Your task to perform on an android device: refresh tabs in the chrome app Image 0: 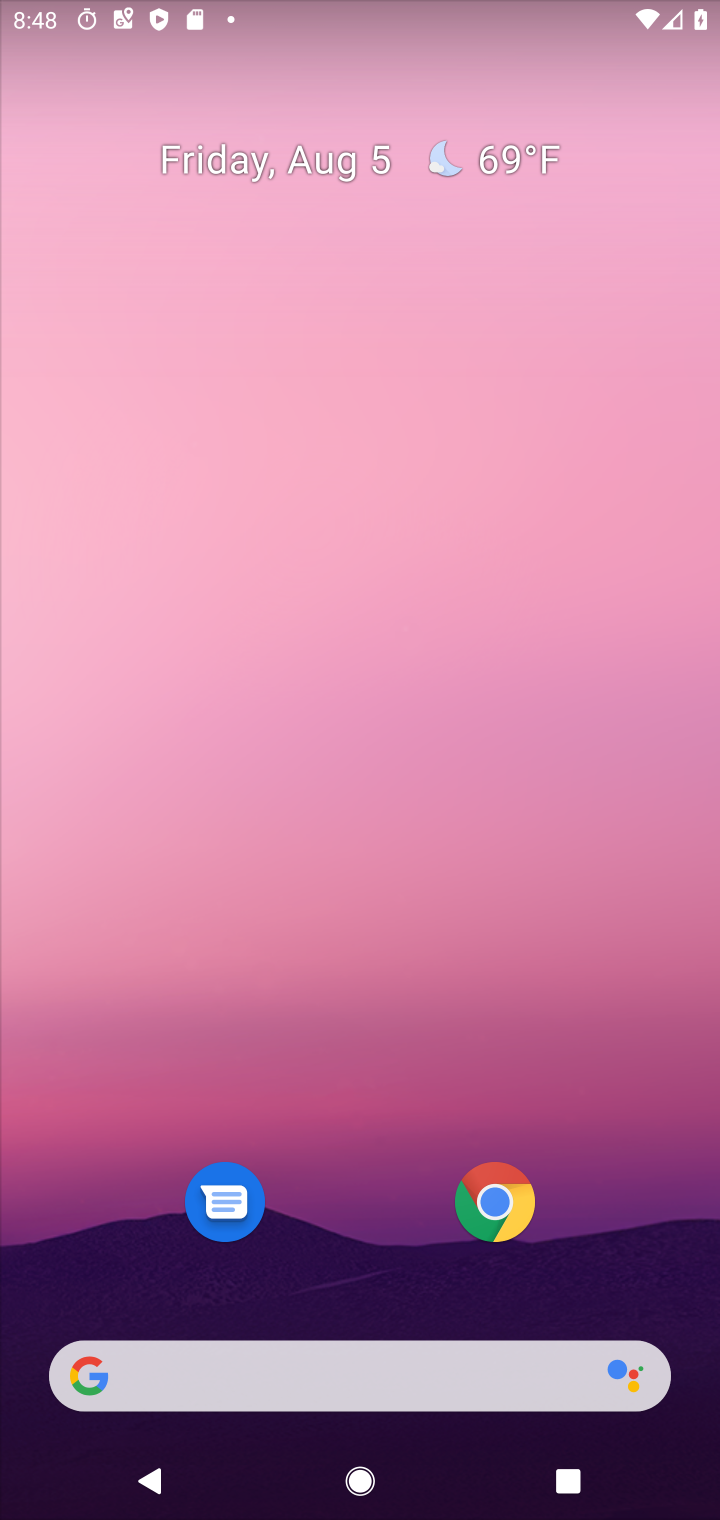
Step 0: click (500, 1214)
Your task to perform on an android device: refresh tabs in the chrome app Image 1: 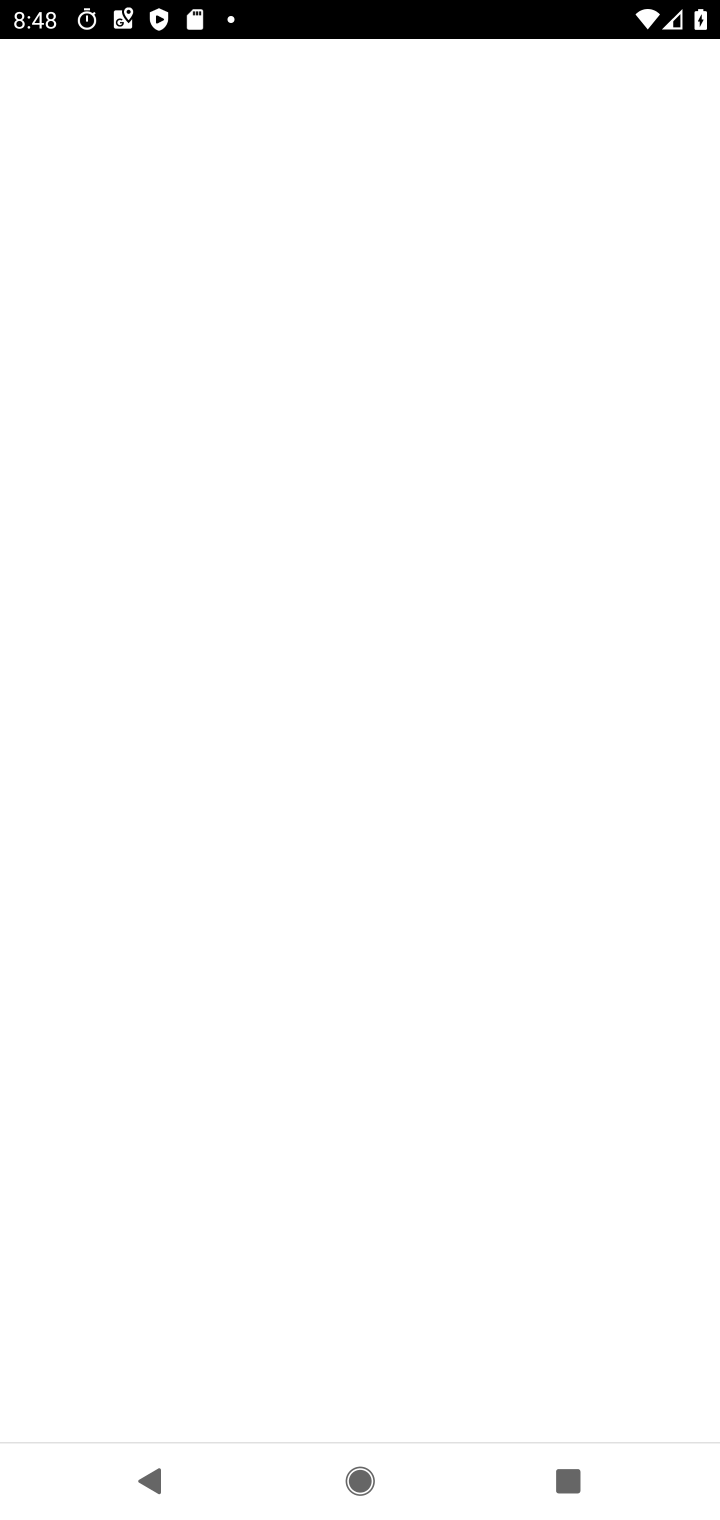
Step 1: click (500, 1214)
Your task to perform on an android device: refresh tabs in the chrome app Image 2: 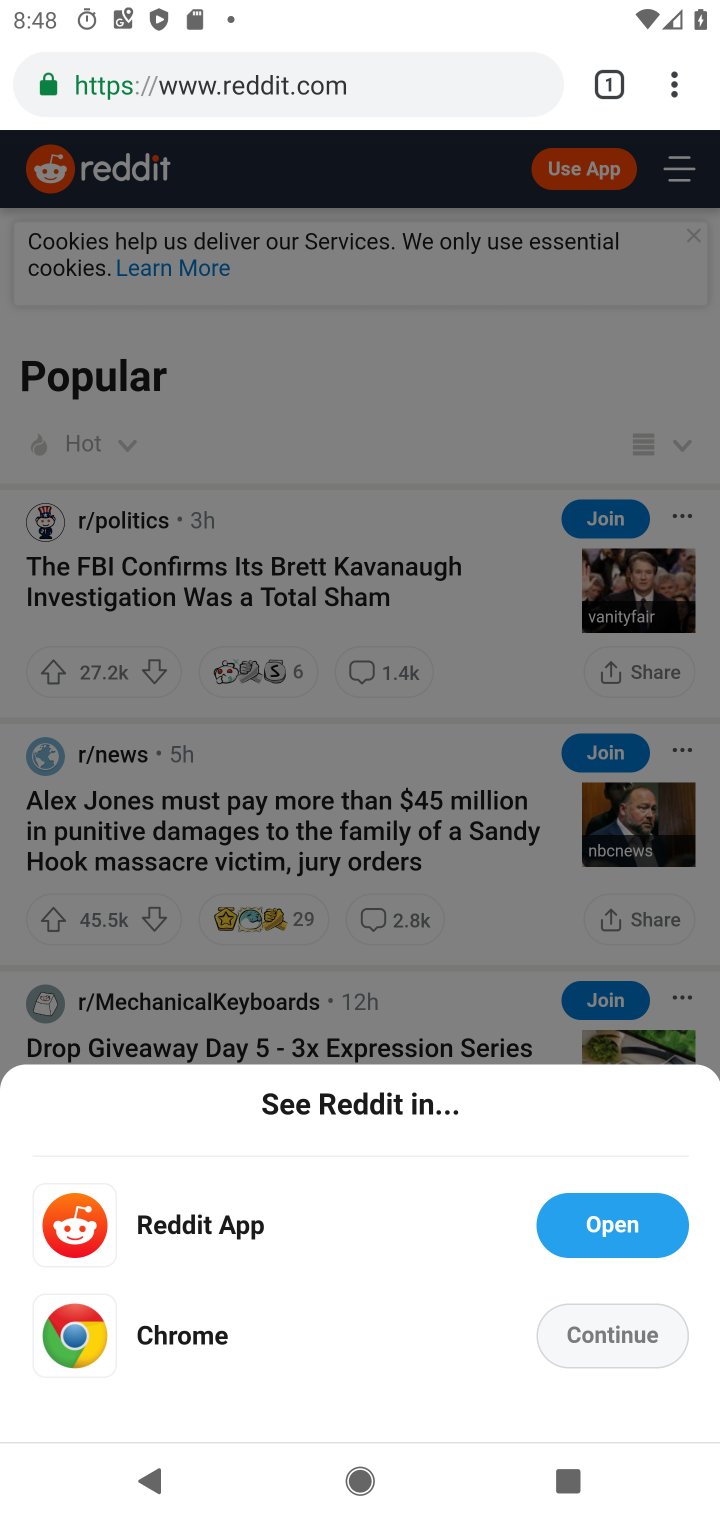
Step 2: click (684, 79)
Your task to perform on an android device: refresh tabs in the chrome app Image 3: 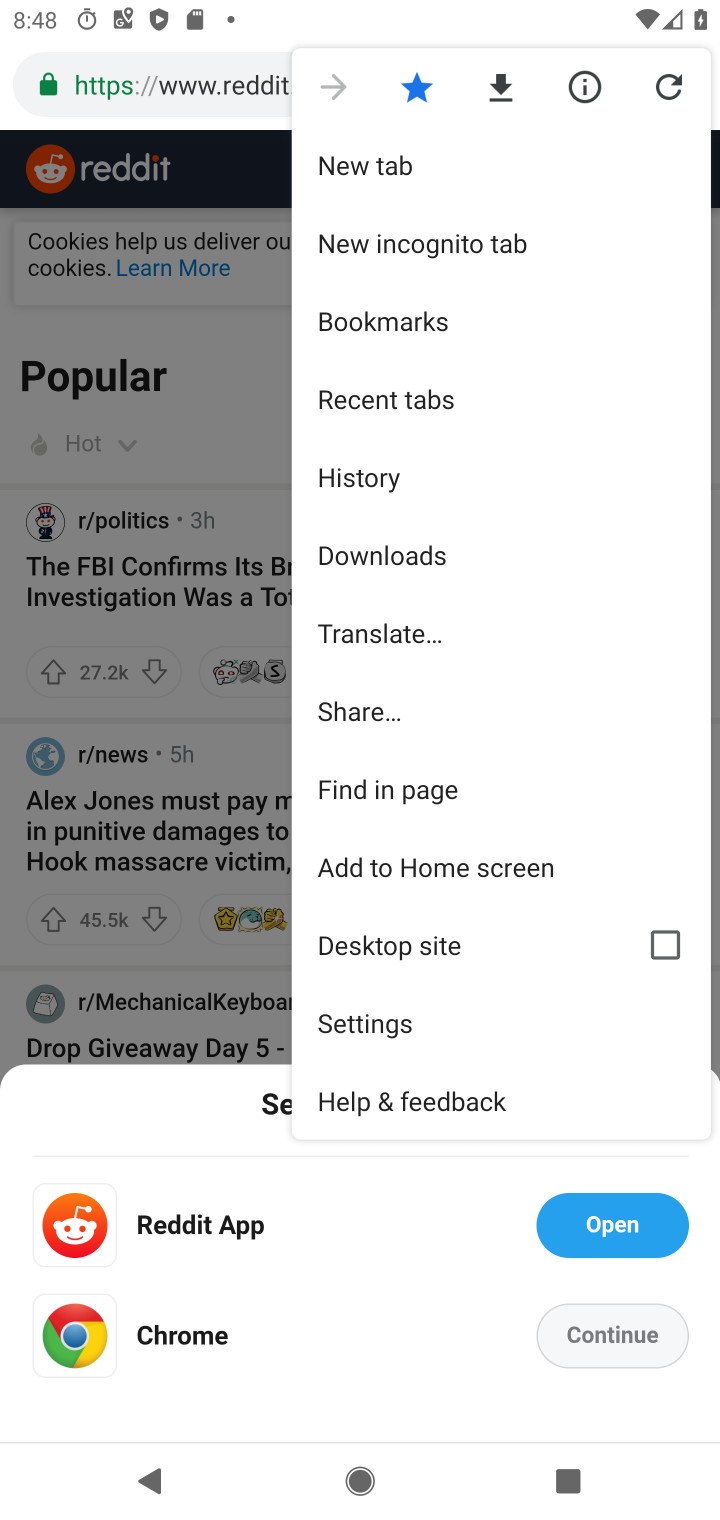
Step 3: click (684, 79)
Your task to perform on an android device: refresh tabs in the chrome app Image 4: 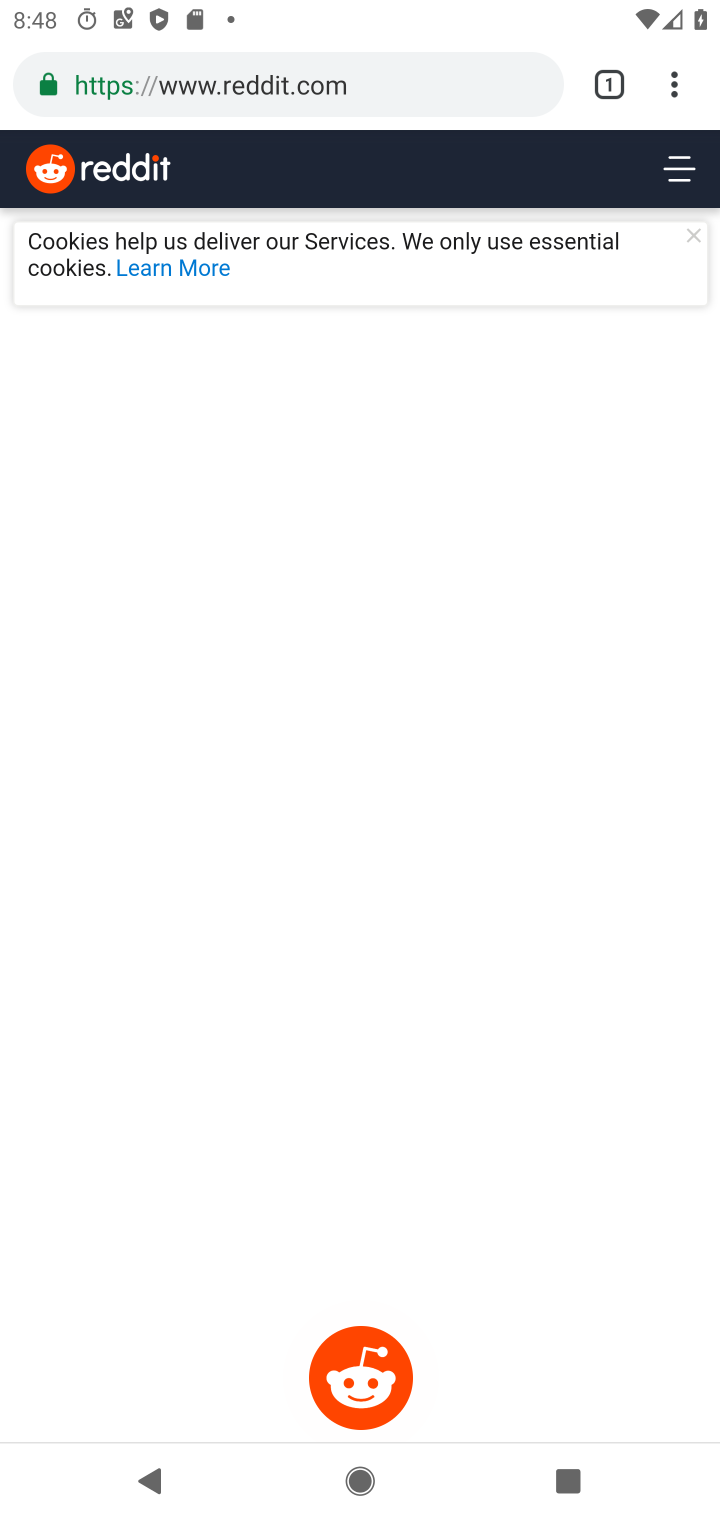
Step 4: task complete